Your task to perform on an android device: Go to eBay Image 0: 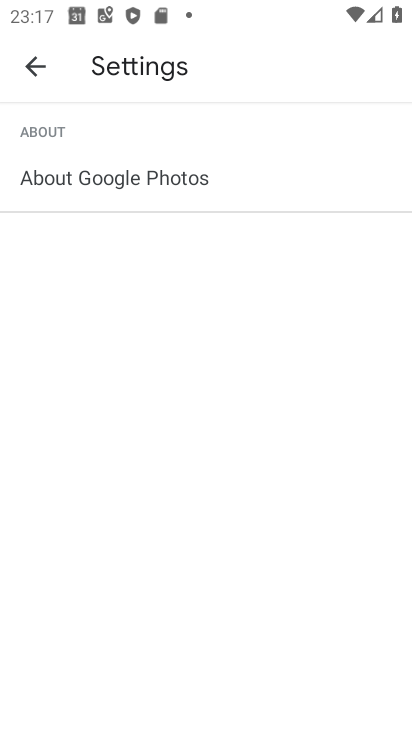
Step 0: press home button
Your task to perform on an android device: Go to eBay Image 1: 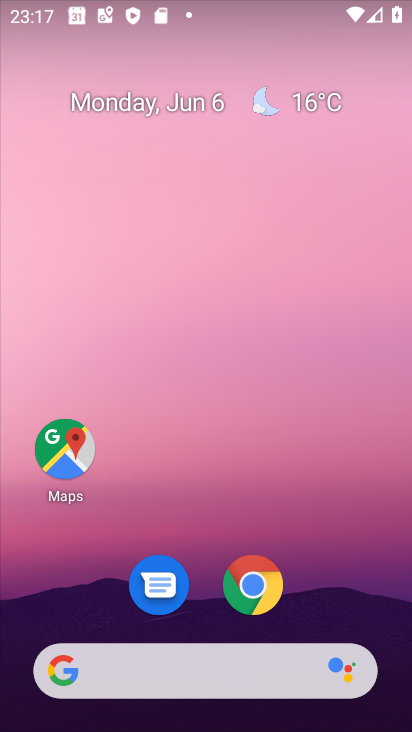
Step 1: click (285, 669)
Your task to perform on an android device: Go to eBay Image 2: 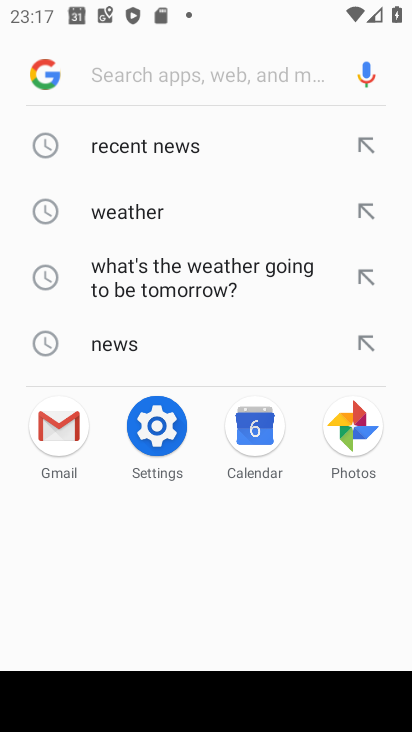
Step 2: type "ebay"
Your task to perform on an android device: Go to eBay Image 3: 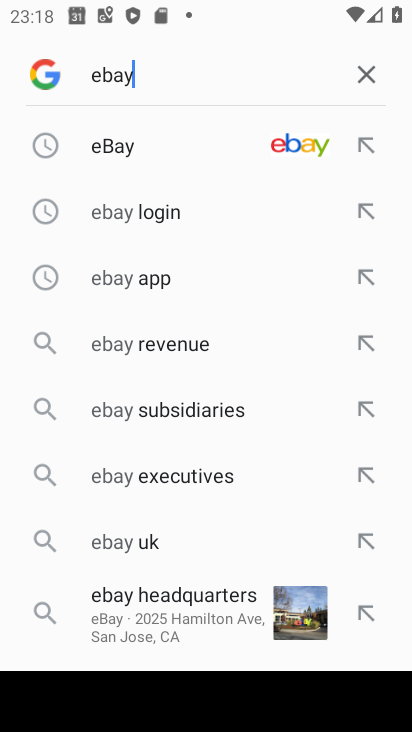
Step 3: click (109, 139)
Your task to perform on an android device: Go to eBay Image 4: 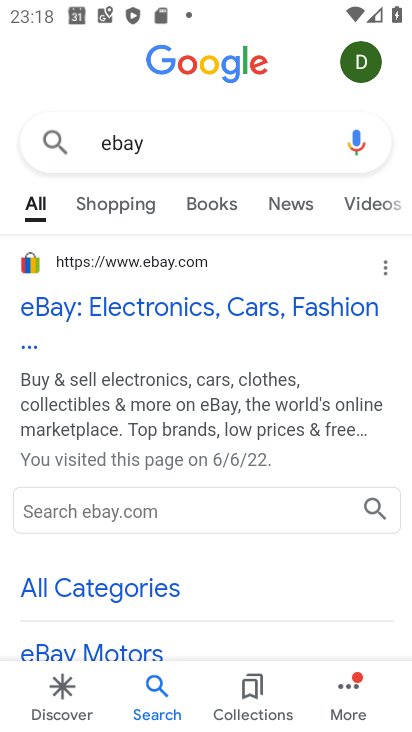
Step 4: click (53, 299)
Your task to perform on an android device: Go to eBay Image 5: 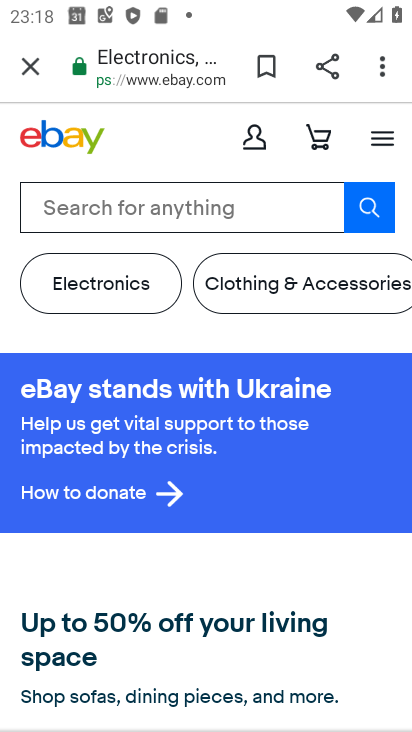
Step 5: task complete